Your task to perform on an android device: Open sound settings Image 0: 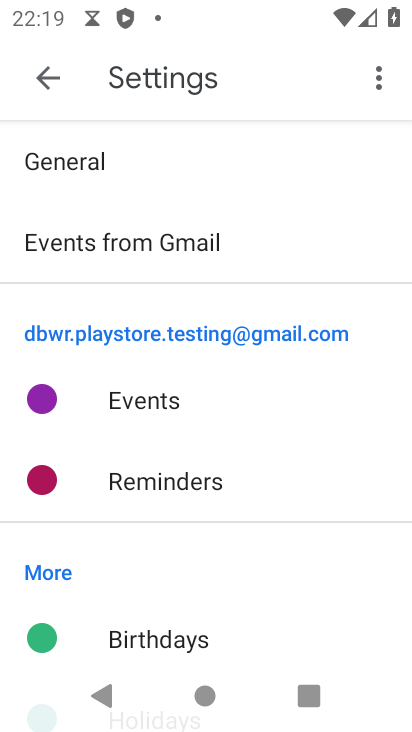
Step 0: press home button
Your task to perform on an android device: Open sound settings Image 1: 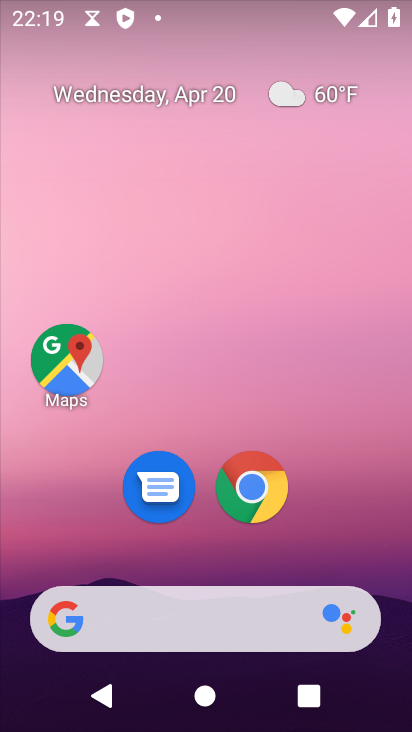
Step 1: drag from (41, 658) to (271, 207)
Your task to perform on an android device: Open sound settings Image 2: 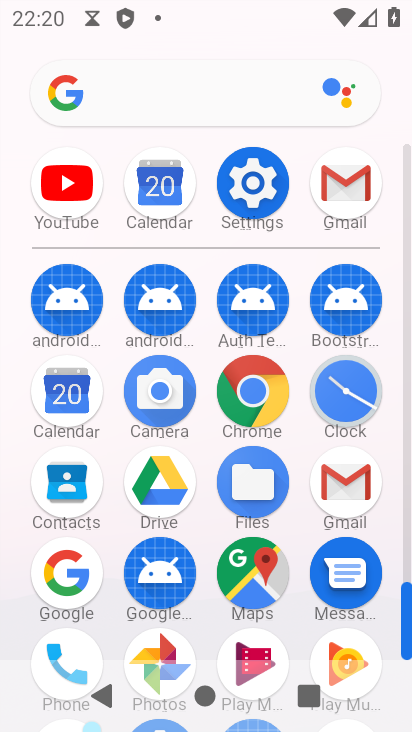
Step 2: click (255, 205)
Your task to perform on an android device: Open sound settings Image 3: 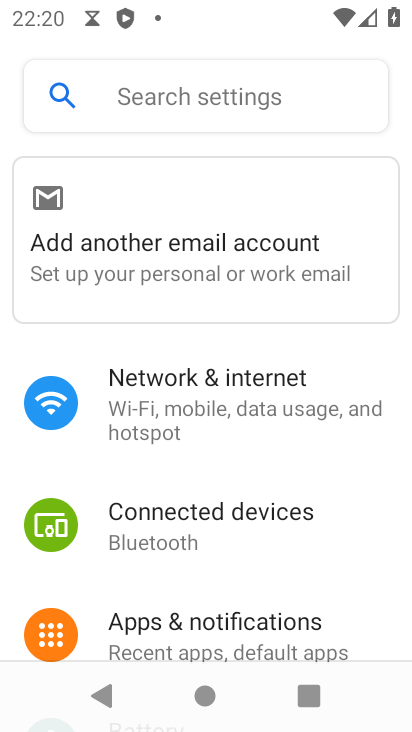
Step 3: drag from (122, 633) to (206, 330)
Your task to perform on an android device: Open sound settings Image 4: 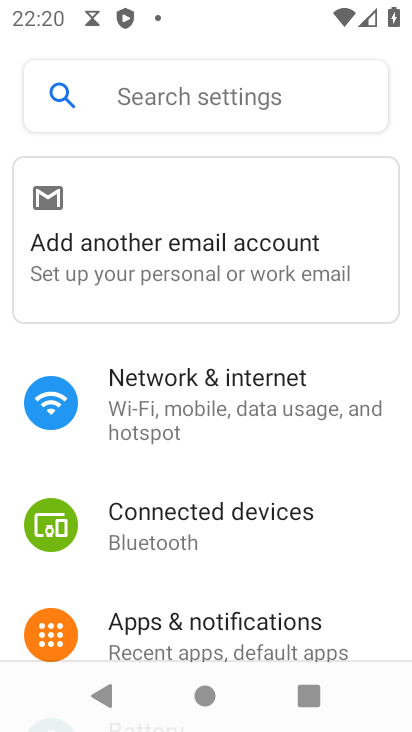
Step 4: drag from (108, 635) to (214, 351)
Your task to perform on an android device: Open sound settings Image 5: 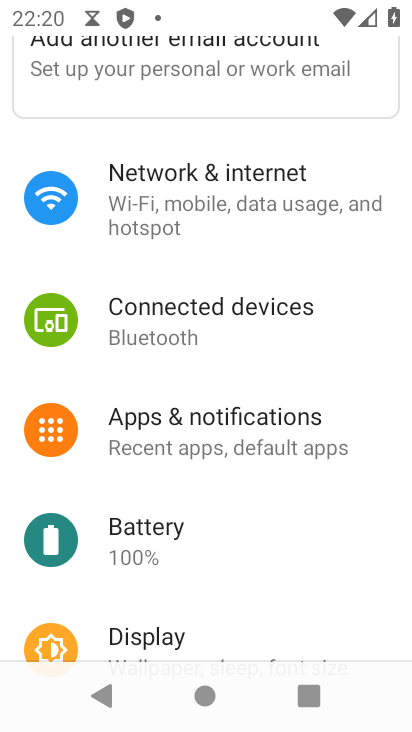
Step 5: drag from (163, 579) to (238, 289)
Your task to perform on an android device: Open sound settings Image 6: 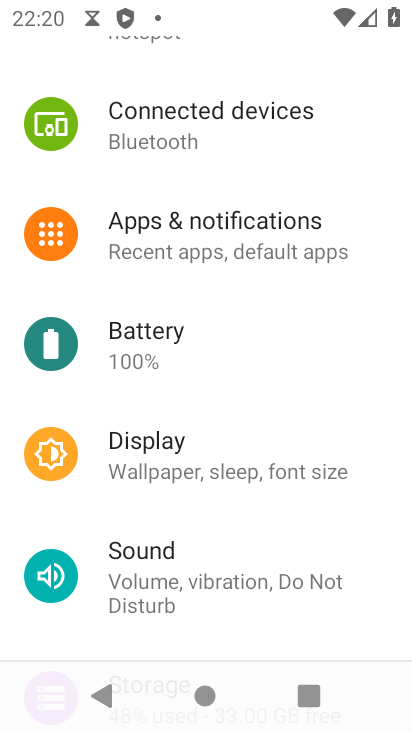
Step 6: click (141, 582)
Your task to perform on an android device: Open sound settings Image 7: 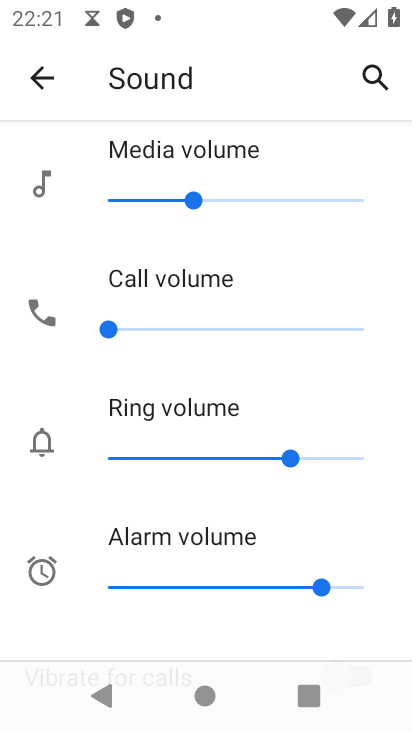
Step 7: task complete